Your task to perform on an android device: open app "DoorDash - Dasher" Image 0: 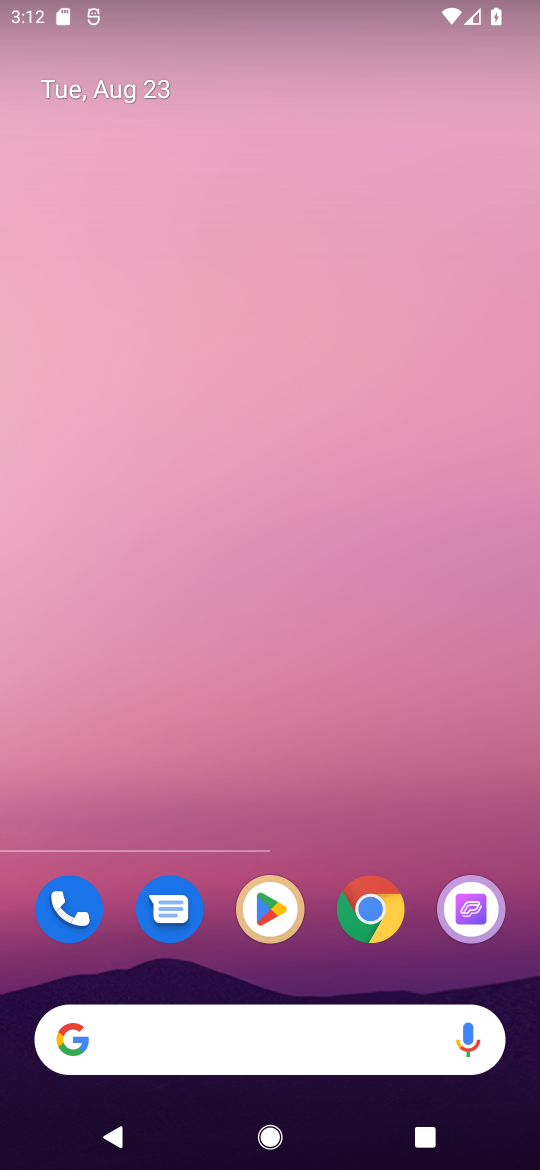
Step 0: press home button
Your task to perform on an android device: open app "DoorDash - Dasher" Image 1: 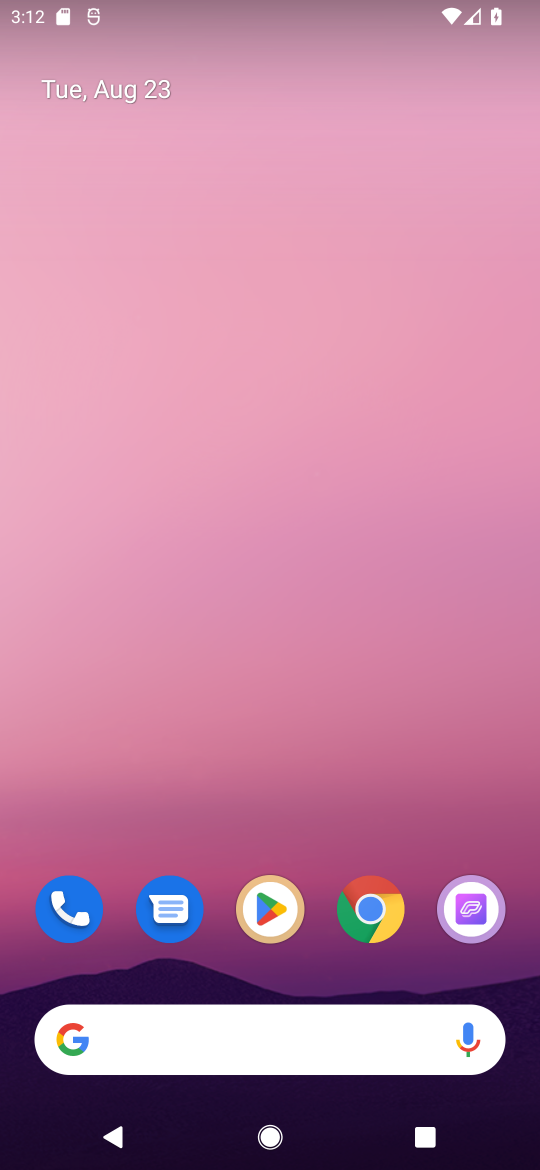
Step 1: click (261, 899)
Your task to perform on an android device: open app "DoorDash - Dasher" Image 2: 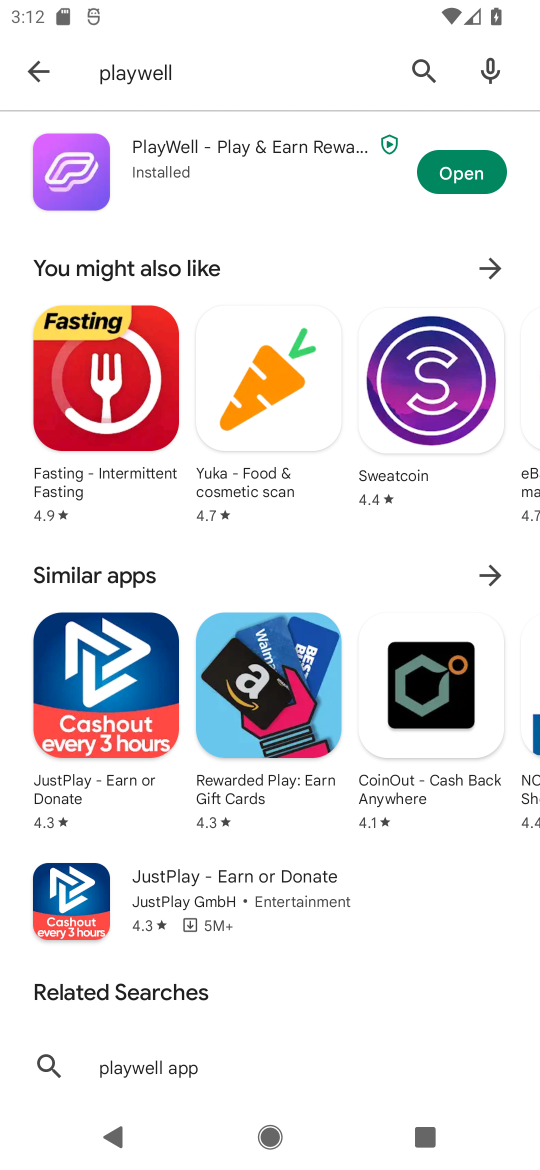
Step 2: click (411, 67)
Your task to perform on an android device: open app "DoorDash - Dasher" Image 3: 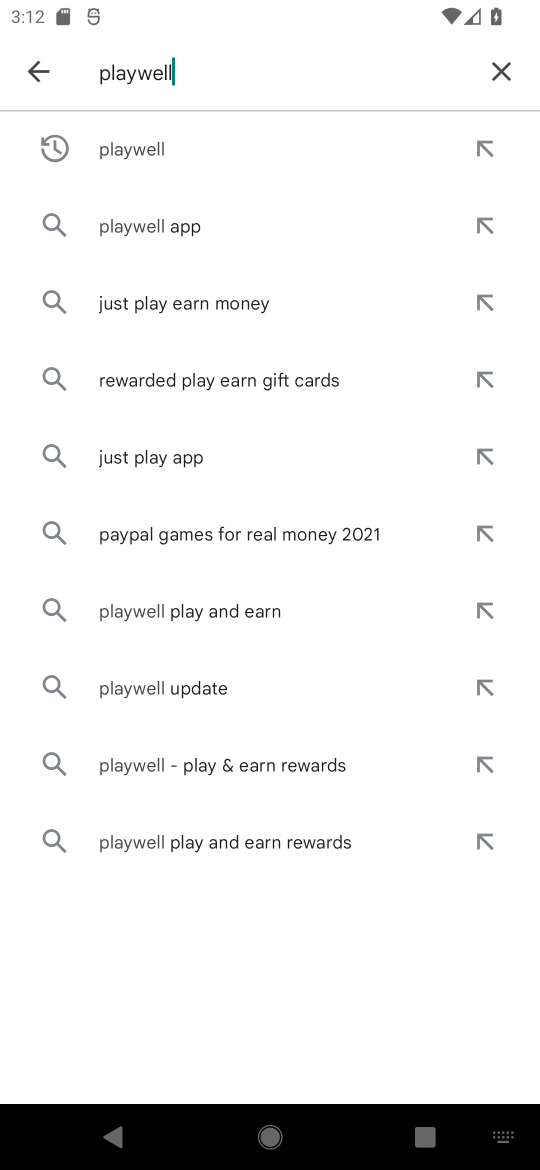
Step 3: click (503, 75)
Your task to perform on an android device: open app "DoorDash - Dasher" Image 4: 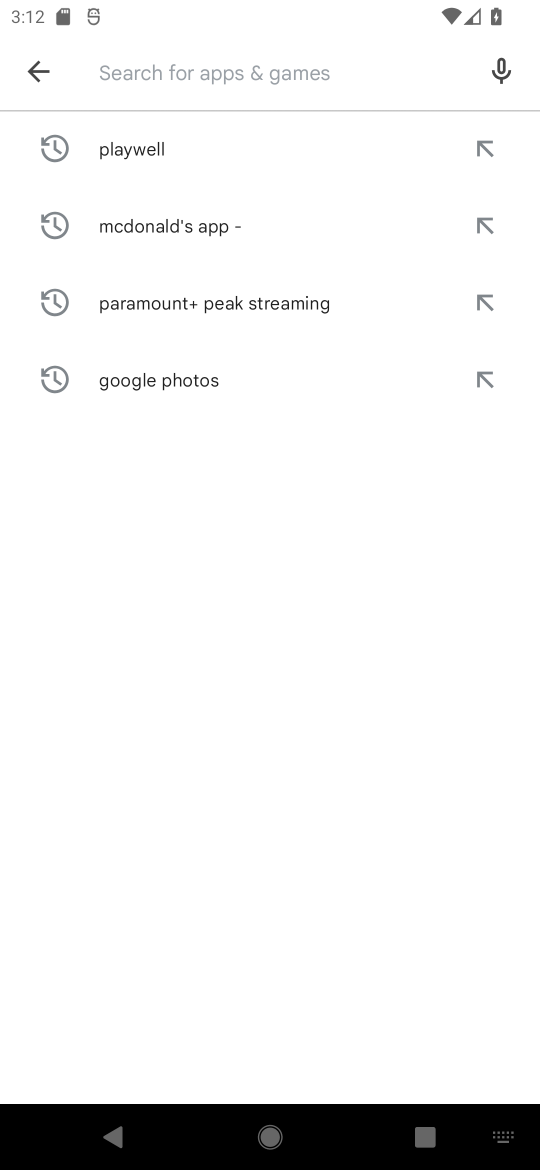
Step 4: type "DoorDash - Dasher"
Your task to perform on an android device: open app "DoorDash - Dasher" Image 5: 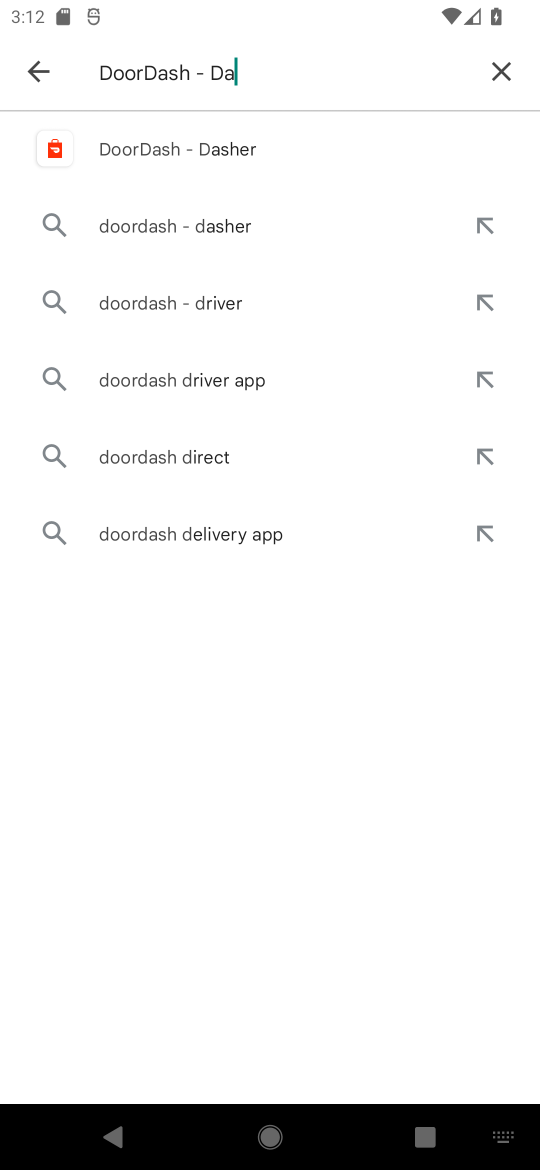
Step 5: type ""
Your task to perform on an android device: open app "DoorDash - Dasher" Image 6: 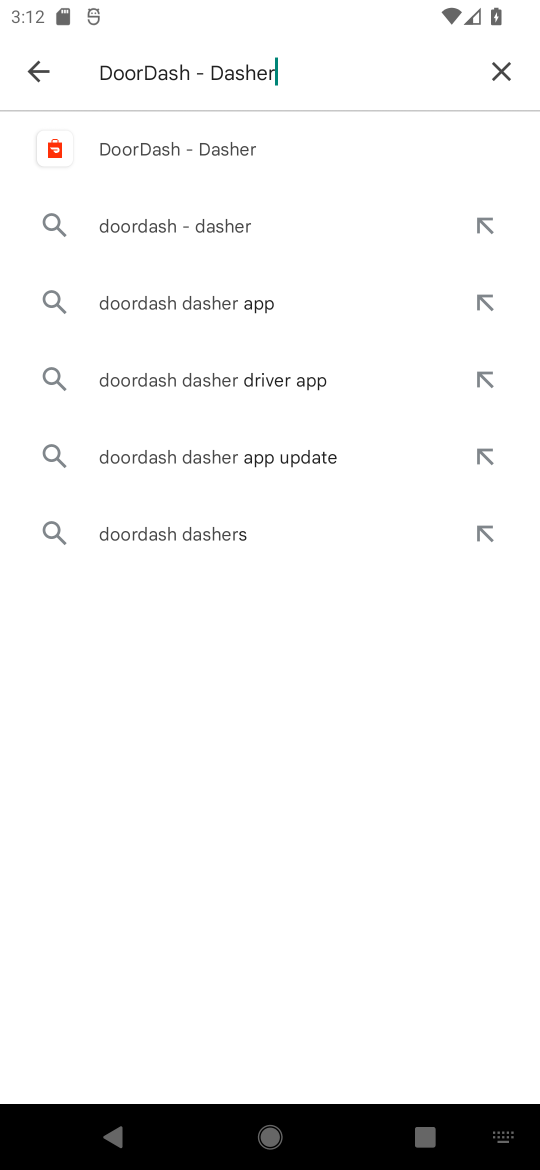
Step 6: click (265, 148)
Your task to perform on an android device: open app "DoorDash - Dasher" Image 7: 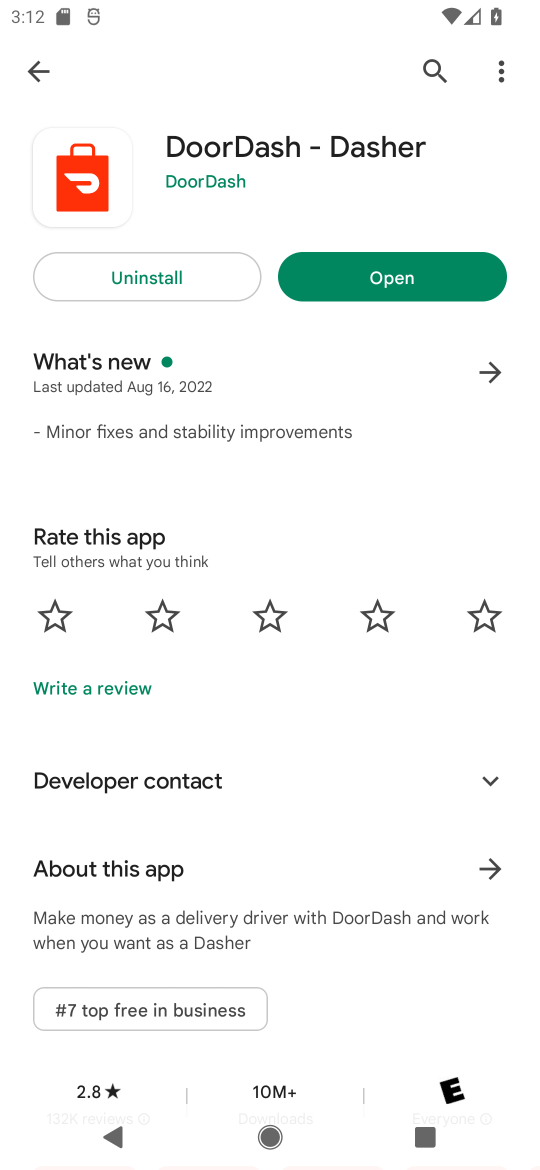
Step 7: click (404, 280)
Your task to perform on an android device: open app "DoorDash - Dasher" Image 8: 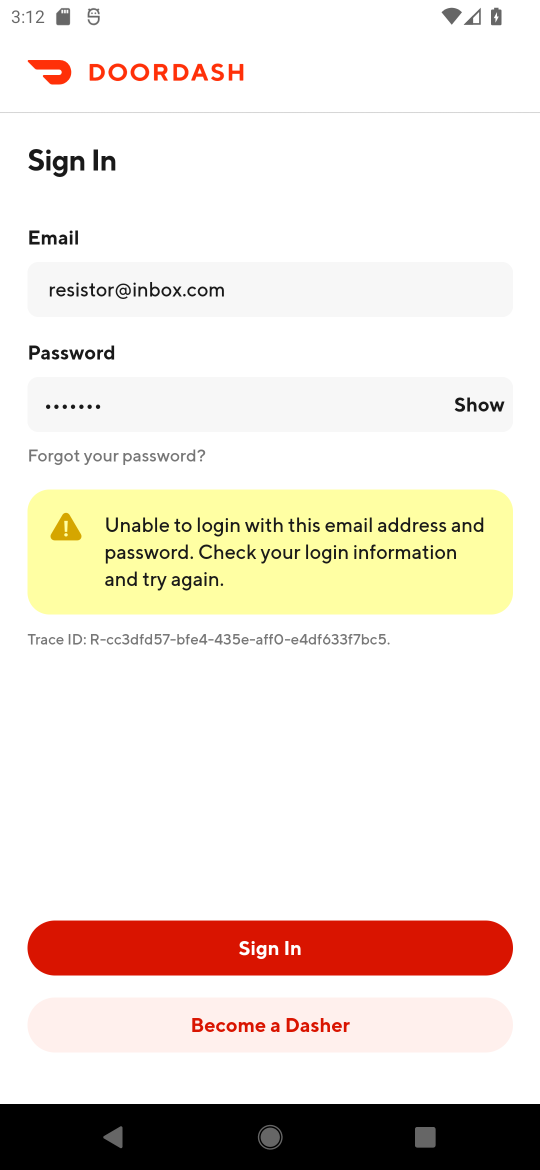
Step 8: click (278, 1025)
Your task to perform on an android device: open app "DoorDash - Dasher" Image 9: 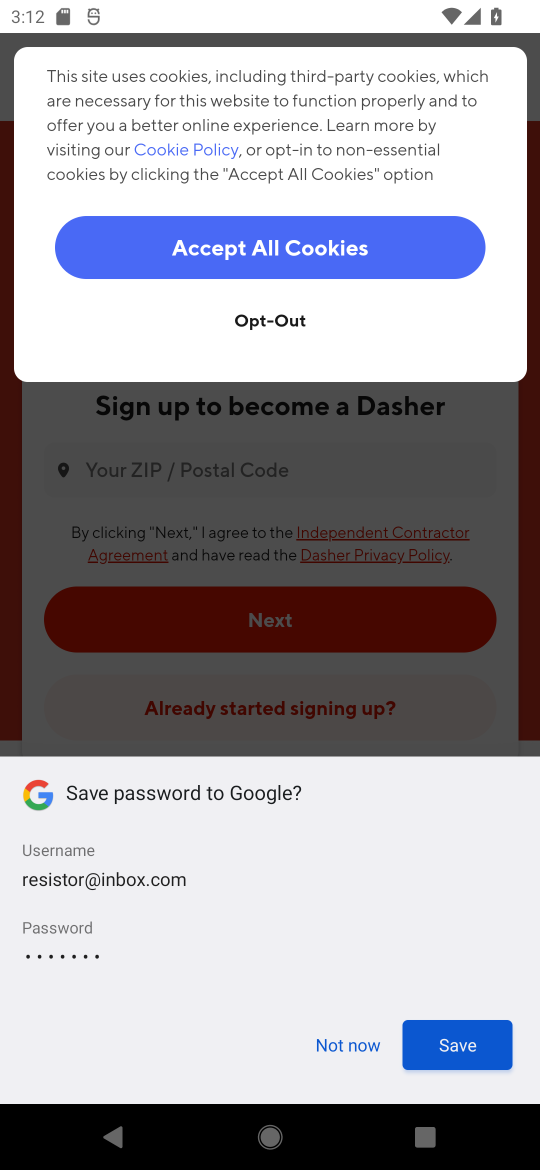
Step 9: click (467, 1039)
Your task to perform on an android device: open app "DoorDash - Dasher" Image 10: 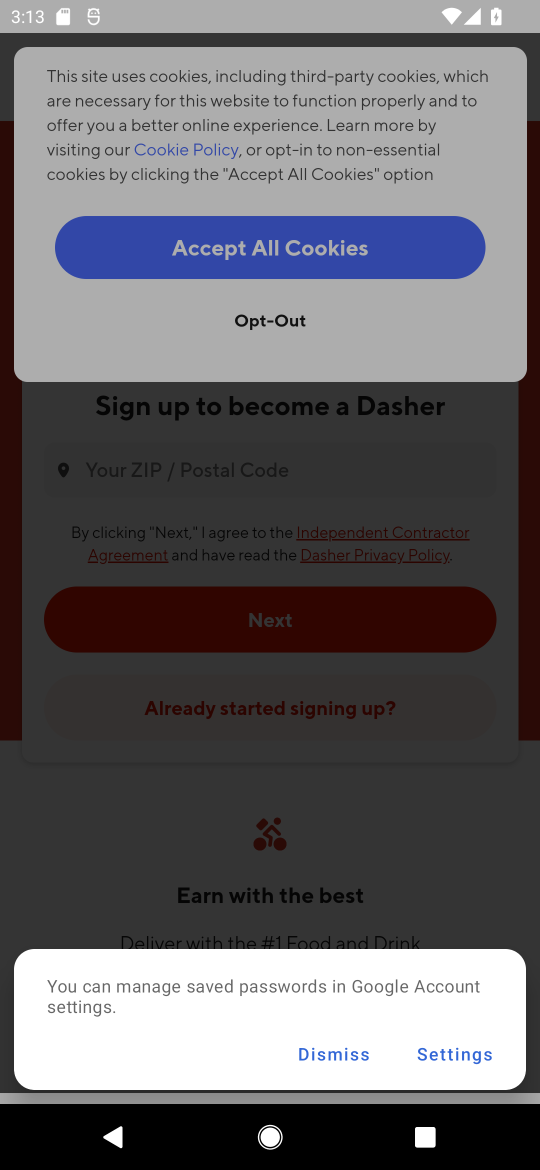
Step 10: click (316, 1065)
Your task to perform on an android device: open app "DoorDash - Dasher" Image 11: 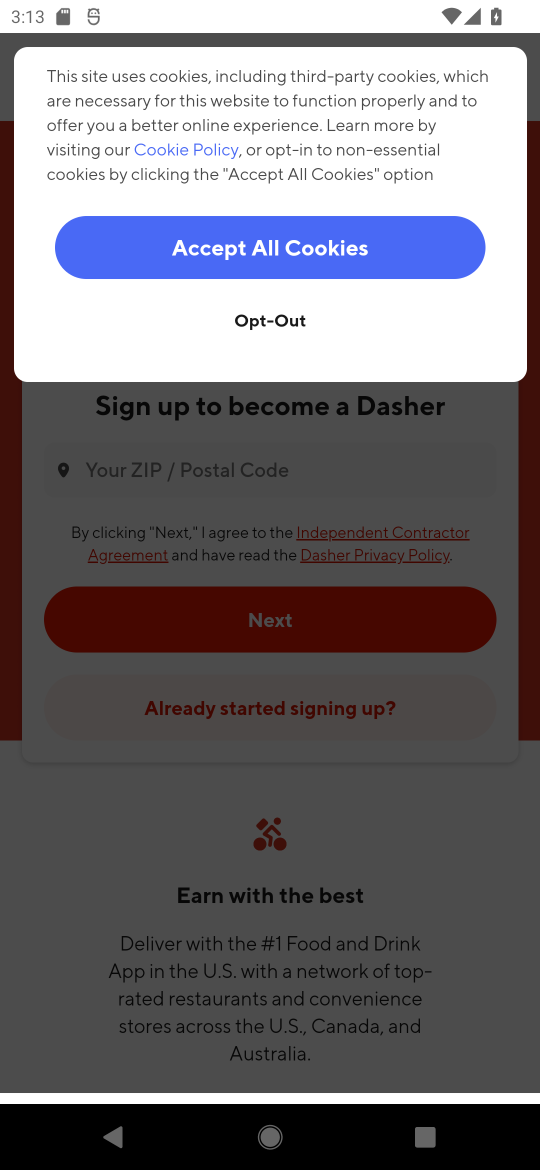
Step 11: click (262, 331)
Your task to perform on an android device: open app "DoorDash - Dasher" Image 12: 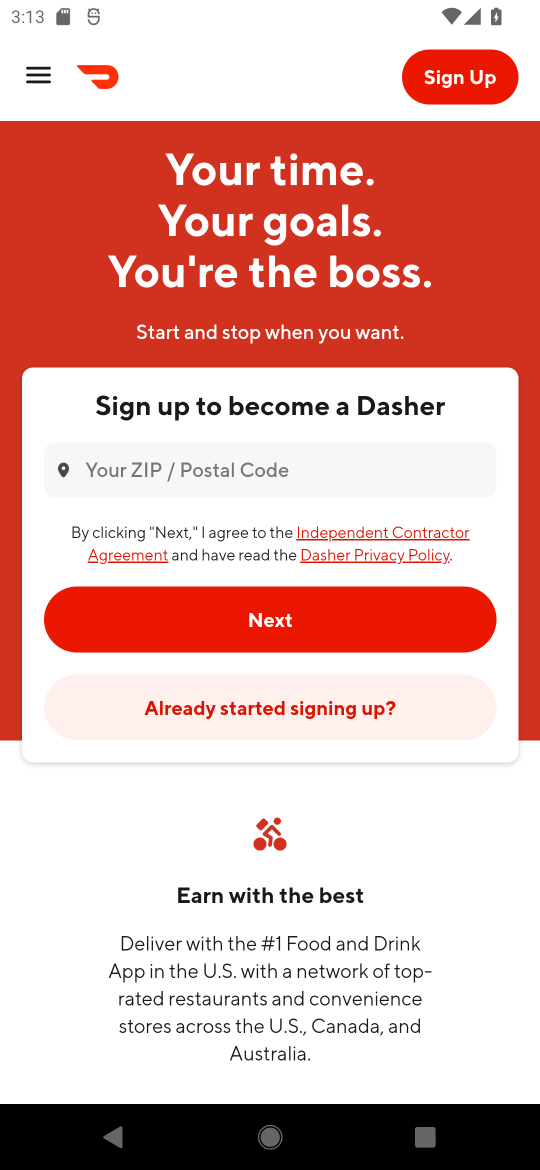
Step 12: task complete